Your task to perform on an android device: Search for Italian restaurants on Maps Image 0: 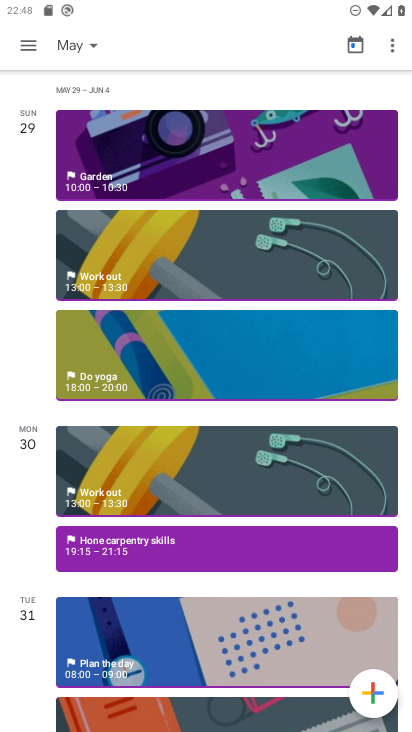
Step 0: press home button
Your task to perform on an android device: Search for Italian restaurants on Maps Image 1: 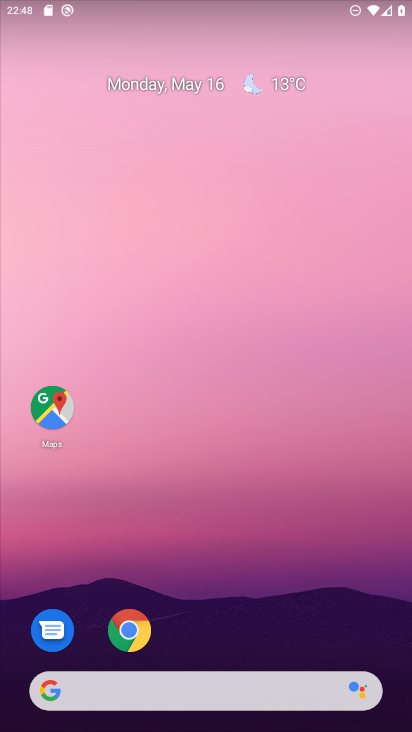
Step 1: click (138, 626)
Your task to perform on an android device: Search for Italian restaurants on Maps Image 2: 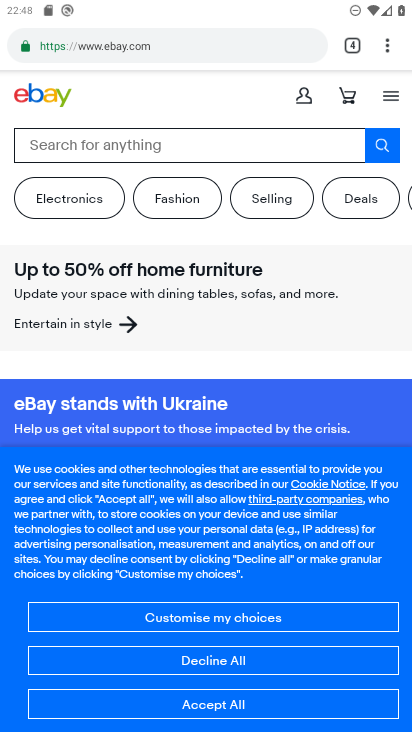
Step 2: click (145, 47)
Your task to perform on an android device: Search for Italian restaurants on Maps Image 3: 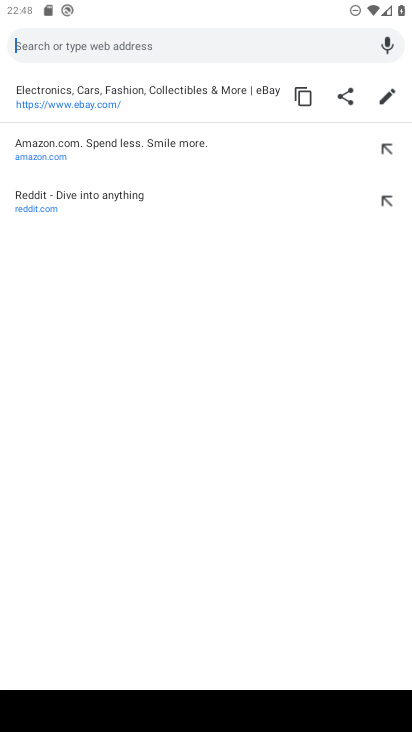
Step 3: type "italian restaurants"
Your task to perform on an android device: Search for Italian restaurants on Maps Image 4: 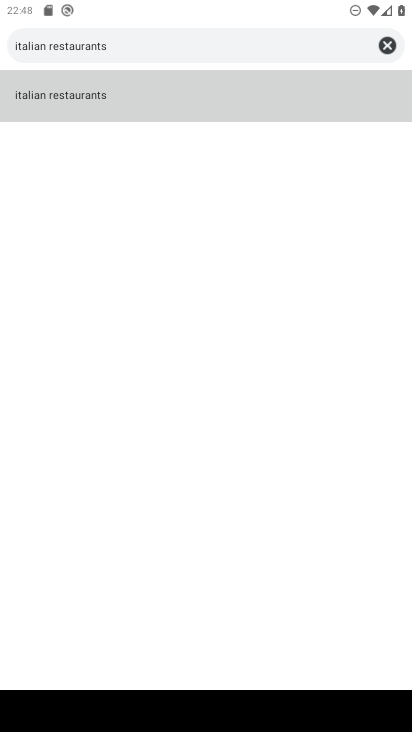
Step 4: click (45, 106)
Your task to perform on an android device: Search for Italian restaurants on Maps Image 5: 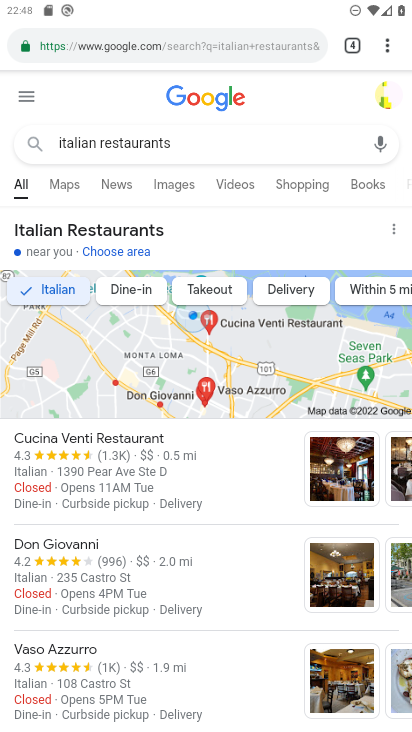
Step 5: task complete